Your task to perform on an android device: Clear all items from cart on newegg. Image 0: 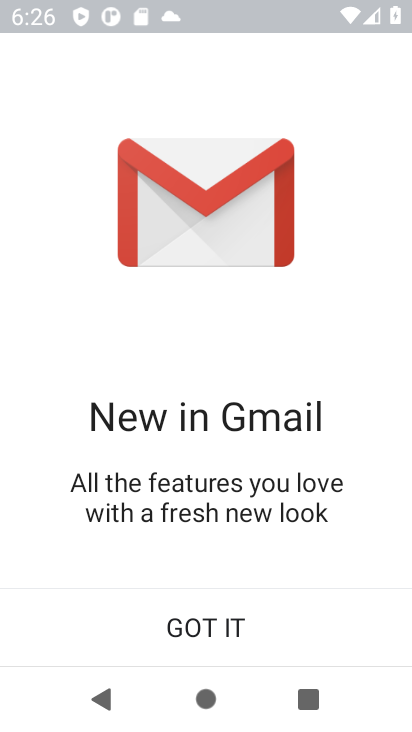
Step 0: press home button
Your task to perform on an android device: Clear all items from cart on newegg. Image 1: 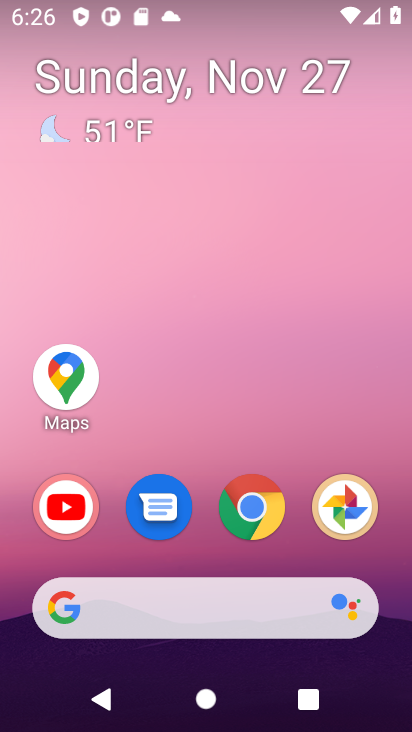
Step 1: click (245, 511)
Your task to perform on an android device: Clear all items from cart on newegg. Image 2: 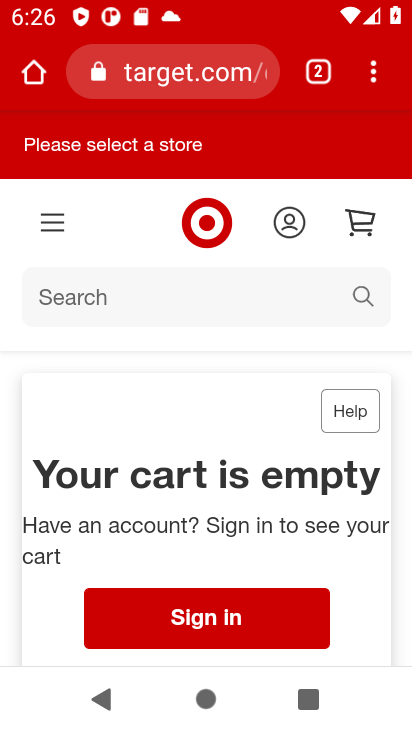
Step 2: click (188, 76)
Your task to perform on an android device: Clear all items from cart on newegg. Image 3: 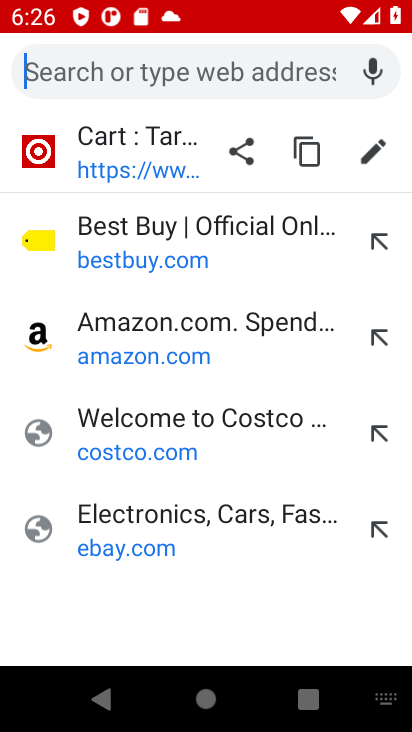
Step 3: type "newegg"
Your task to perform on an android device: Clear all items from cart on newegg. Image 4: 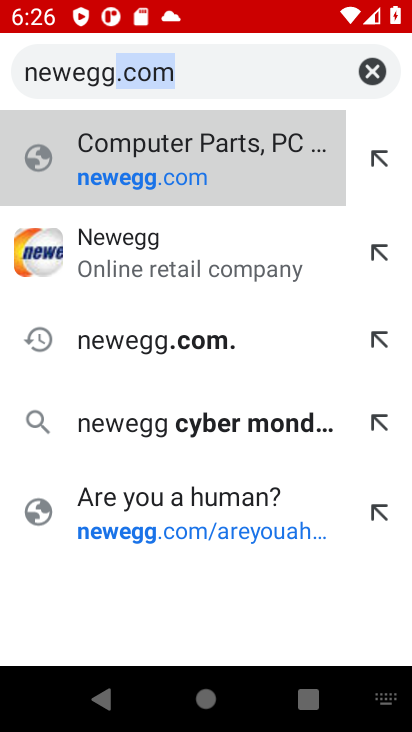
Step 4: click (152, 165)
Your task to perform on an android device: Clear all items from cart on newegg. Image 5: 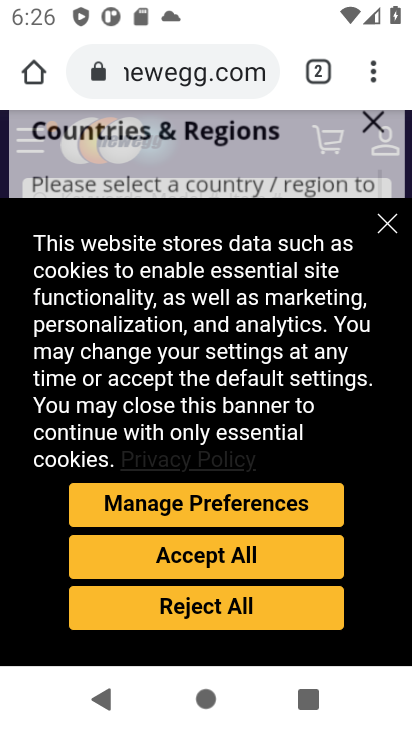
Step 5: click (322, 146)
Your task to perform on an android device: Clear all items from cart on newegg. Image 6: 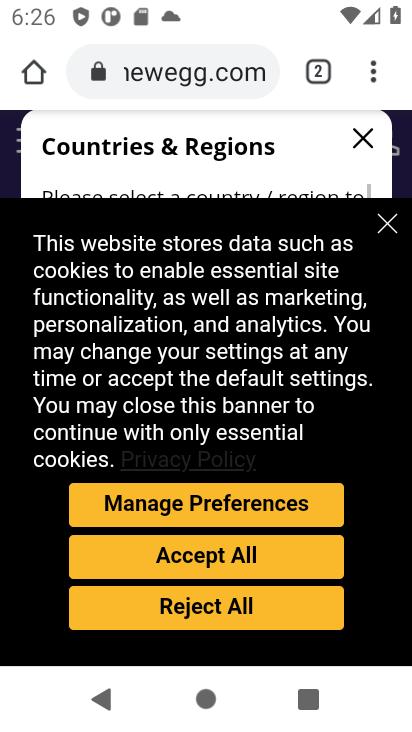
Step 6: click (361, 132)
Your task to perform on an android device: Clear all items from cart on newegg. Image 7: 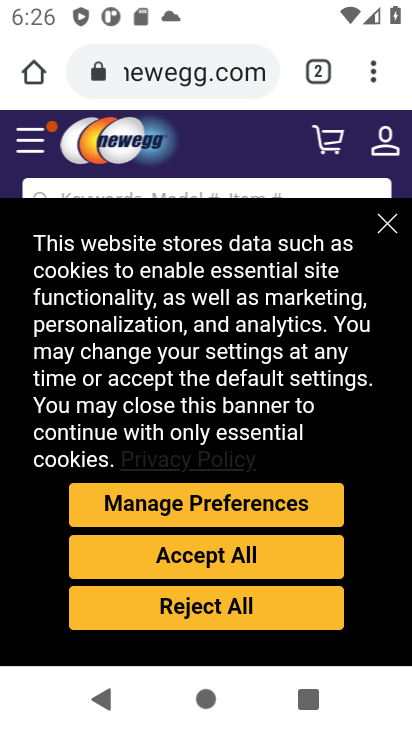
Step 7: click (384, 213)
Your task to perform on an android device: Clear all items from cart on newegg. Image 8: 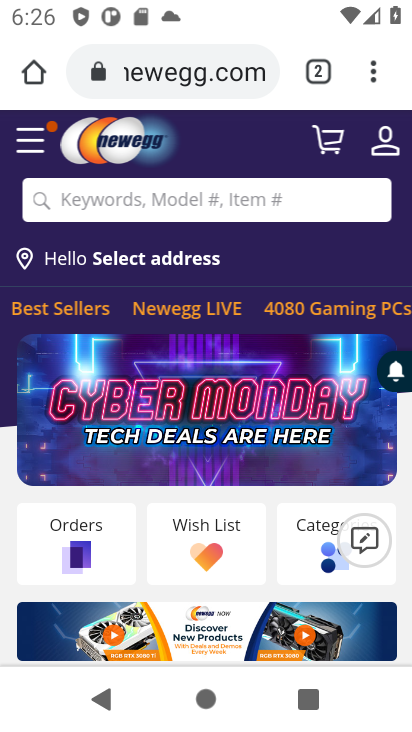
Step 8: click (331, 134)
Your task to perform on an android device: Clear all items from cart on newegg. Image 9: 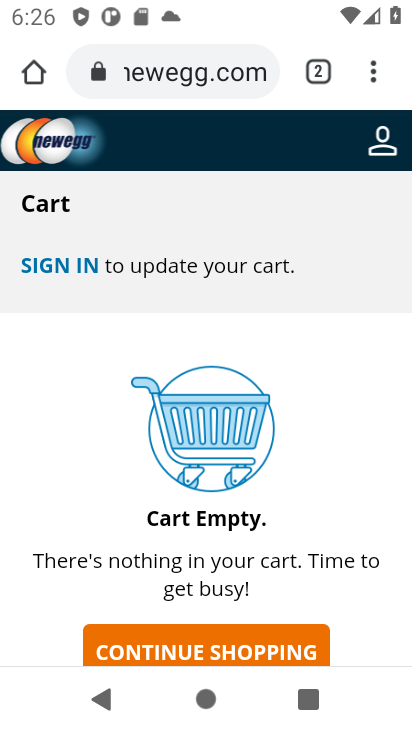
Step 9: task complete